Your task to perform on an android device: Open maps Image 0: 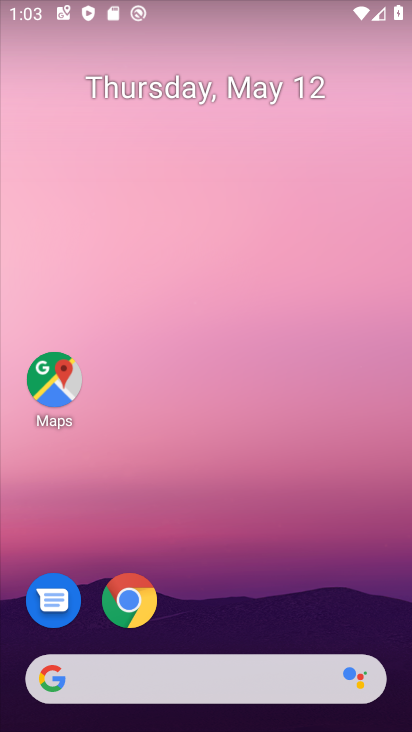
Step 0: click (67, 384)
Your task to perform on an android device: Open maps Image 1: 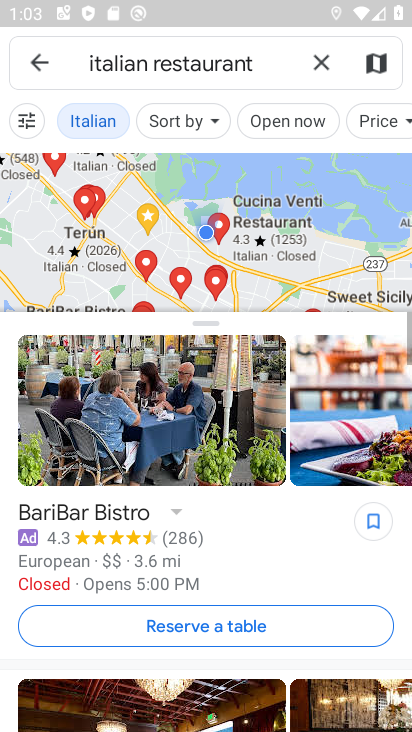
Step 1: task complete